Your task to perform on an android device: check the backup settings in the google photos Image 0: 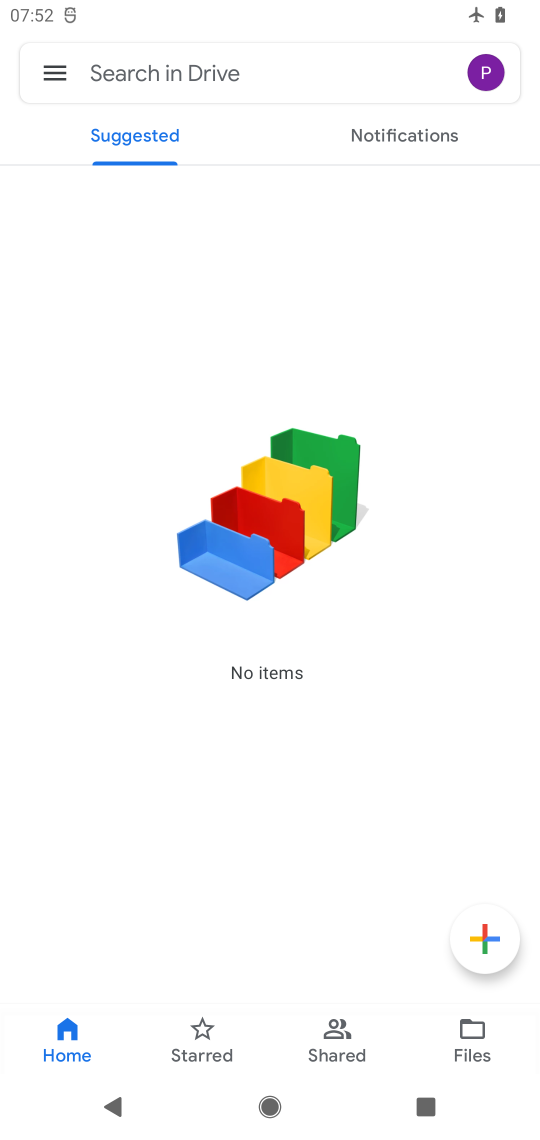
Step 0: press home button
Your task to perform on an android device: check the backup settings in the google photos Image 1: 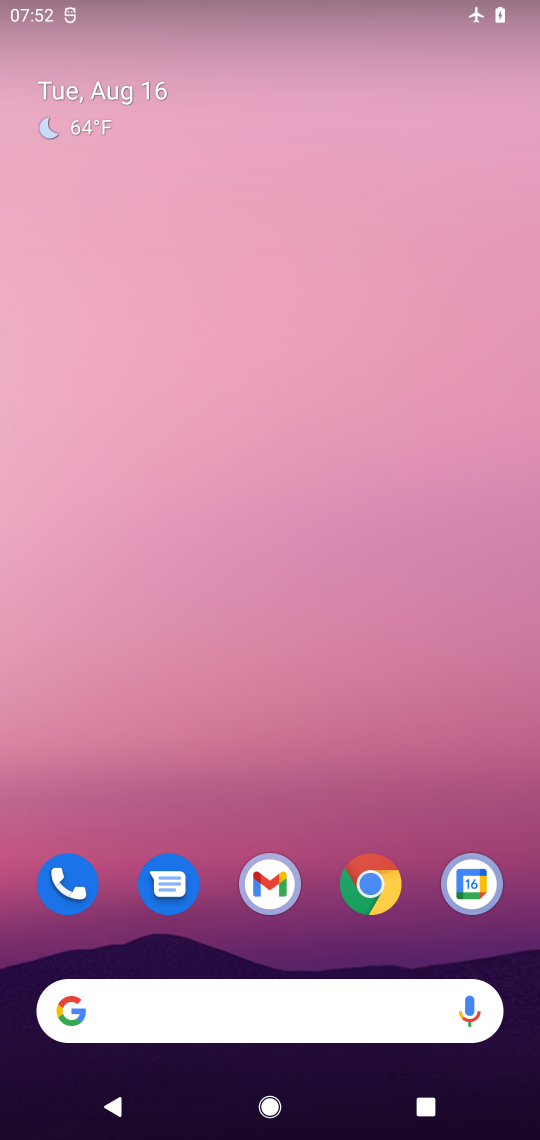
Step 1: drag from (363, 748) to (274, 39)
Your task to perform on an android device: check the backup settings in the google photos Image 2: 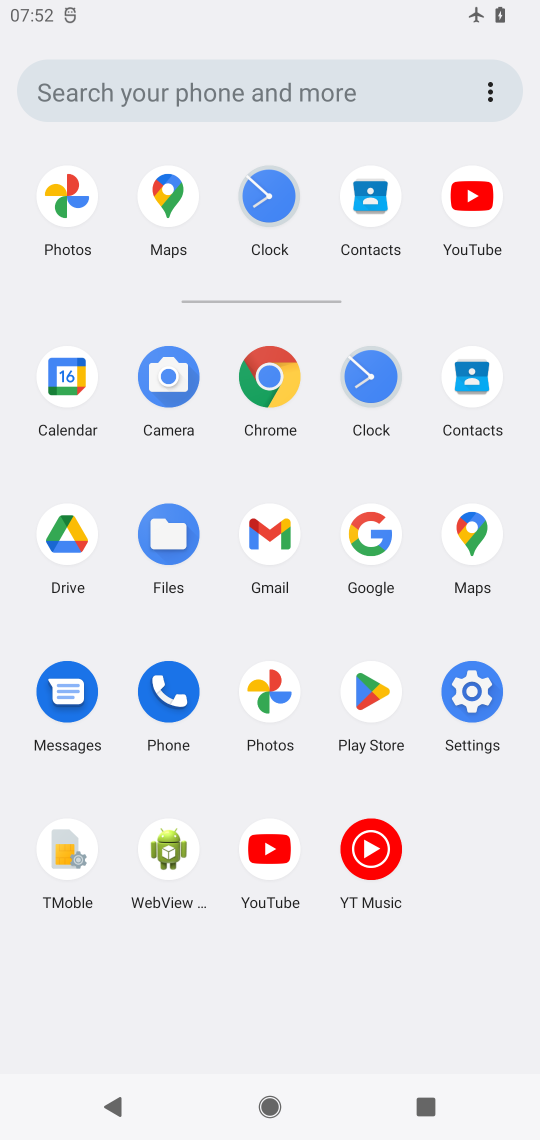
Step 2: click (269, 686)
Your task to perform on an android device: check the backup settings in the google photos Image 3: 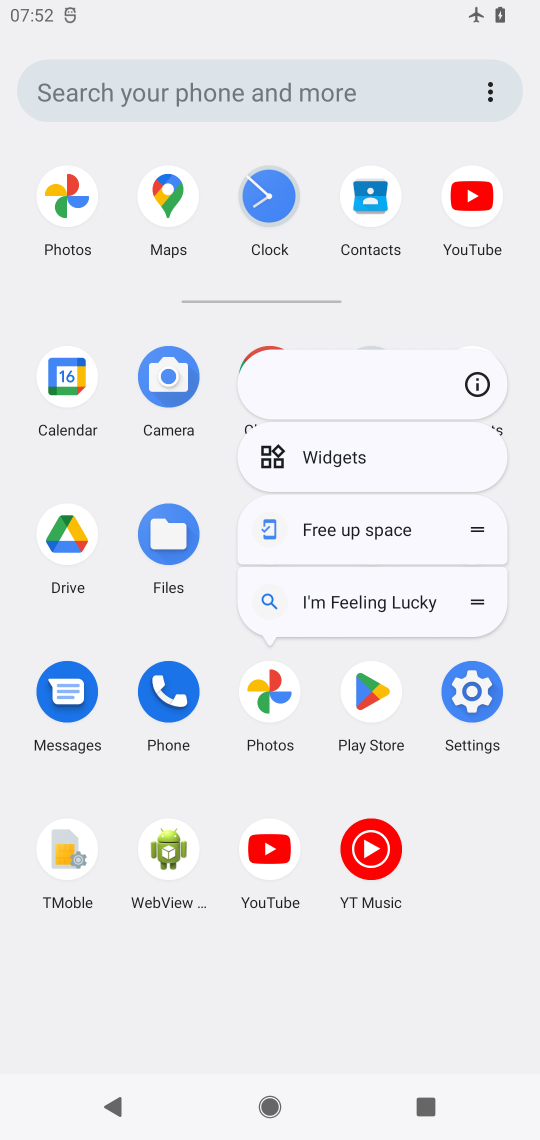
Step 3: click (274, 698)
Your task to perform on an android device: check the backup settings in the google photos Image 4: 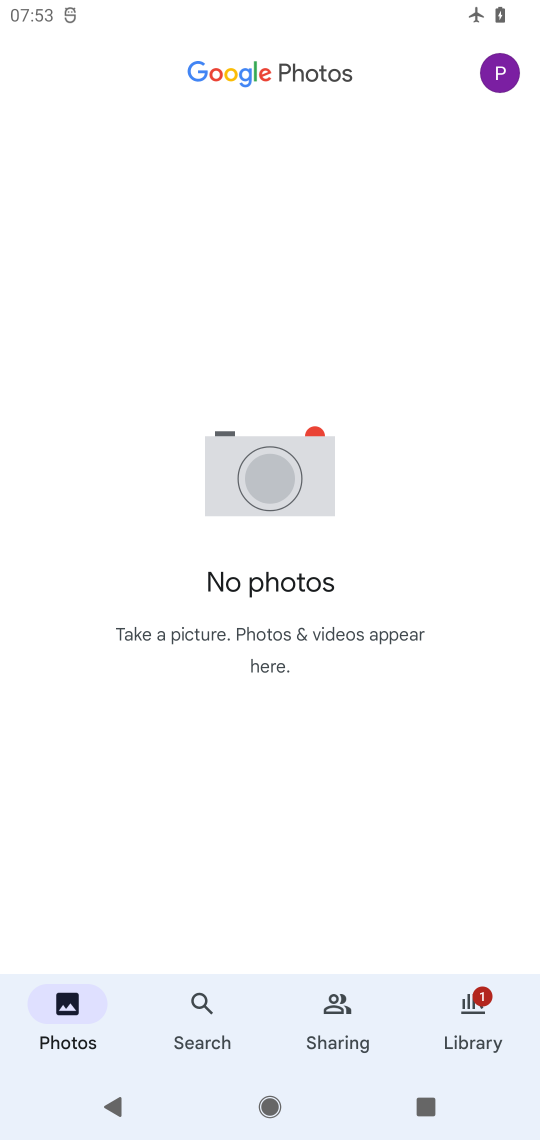
Step 4: click (491, 68)
Your task to perform on an android device: check the backup settings in the google photos Image 5: 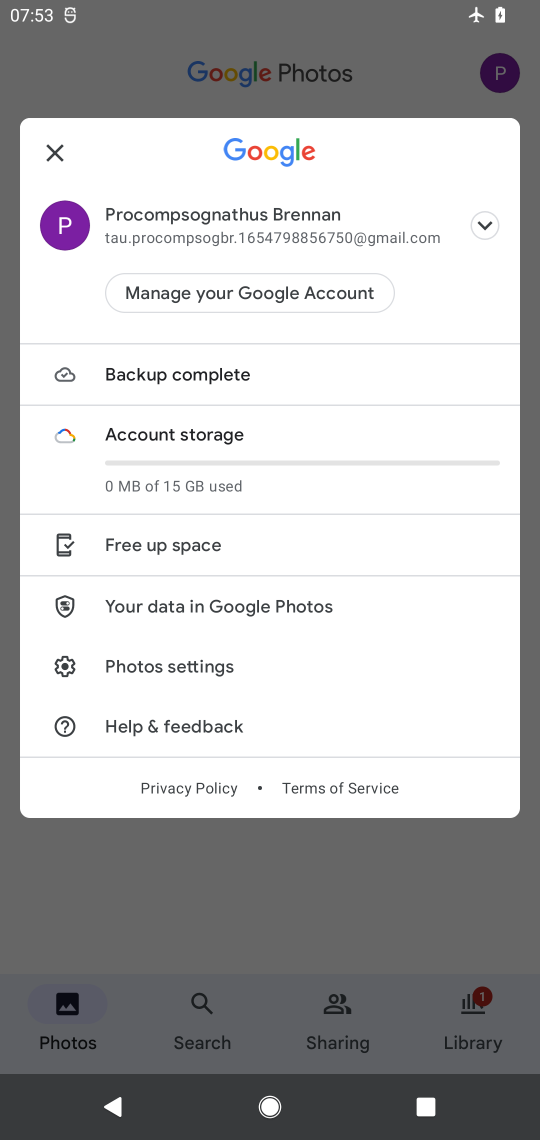
Step 5: drag from (224, 371) to (255, 451)
Your task to perform on an android device: check the backup settings in the google photos Image 6: 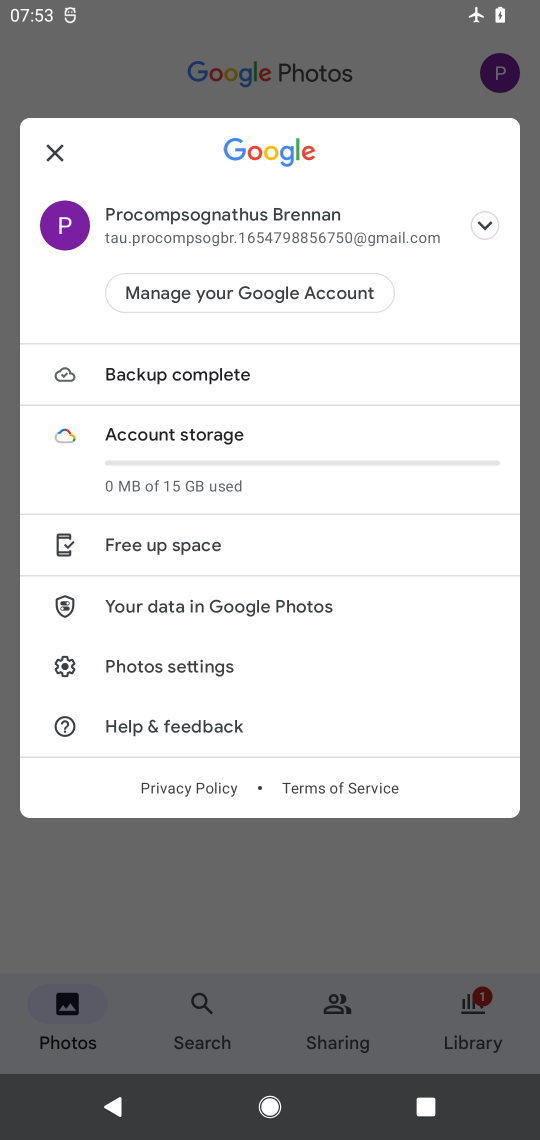
Step 6: click (209, 705)
Your task to perform on an android device: check the backup settings in the google photos Image 7: 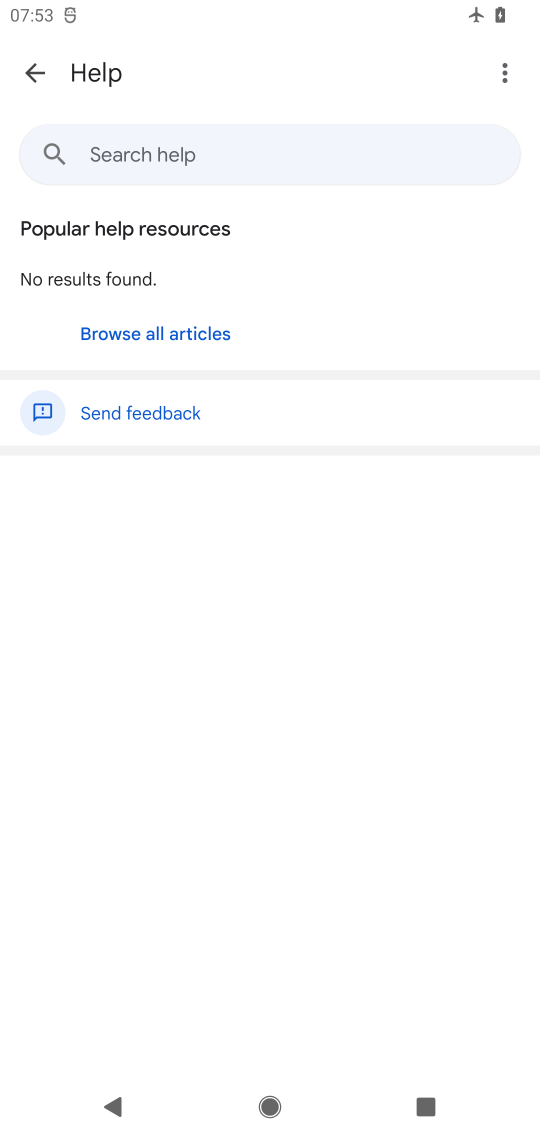
Step 7: click (35, 67)
Your task to perform on an android device: check the backup settings in the google photos Image 8: 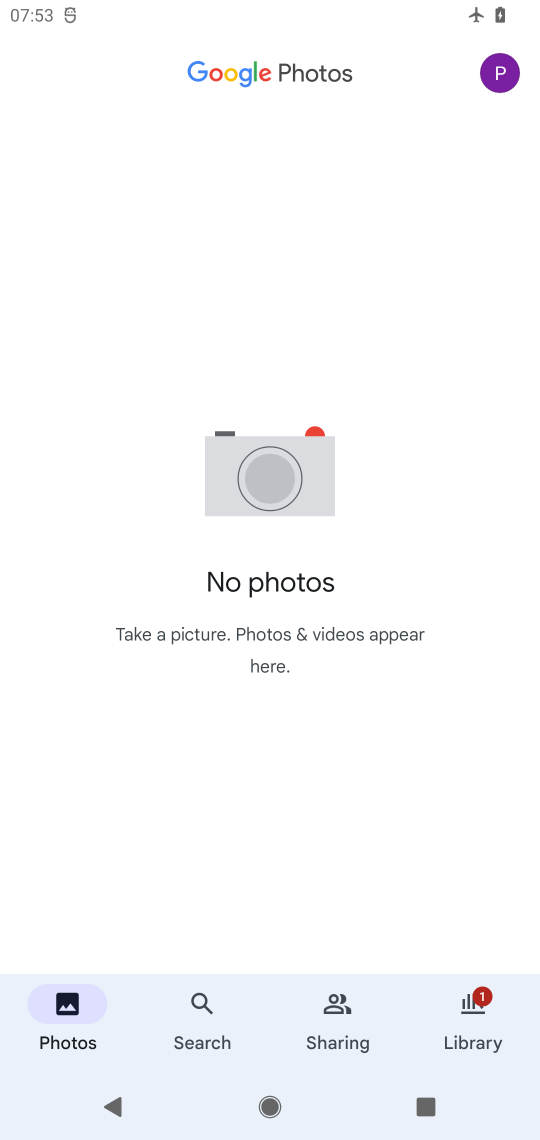
Step 8: click (491, 68)
Your task to perform on an android device: check the backup settings in the google photos Image 9: 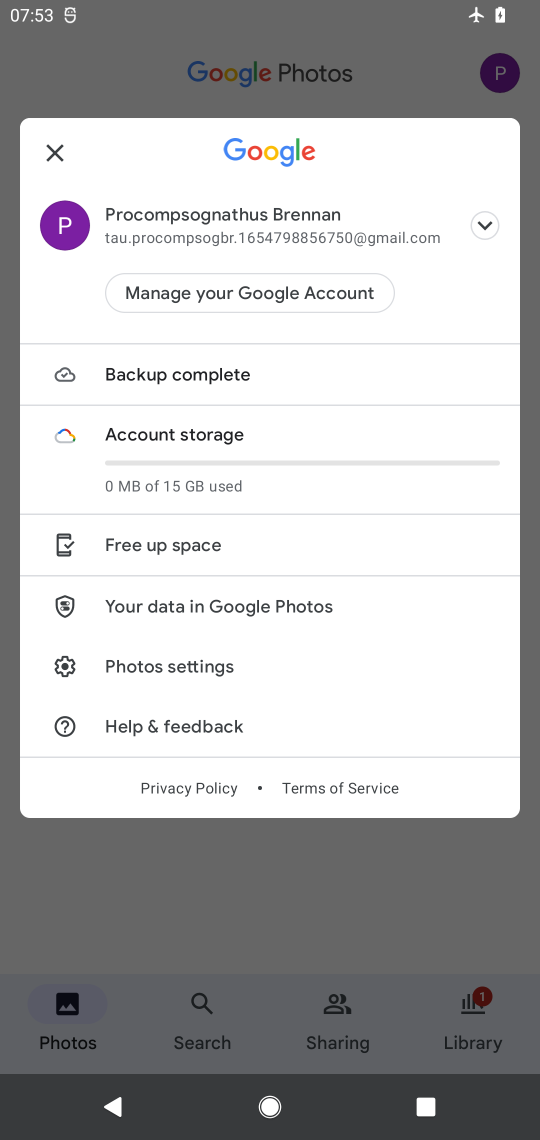
Step 9: click (191, 665)
Your task to perform on an android device: check the backup settings in the google photos Image 10: 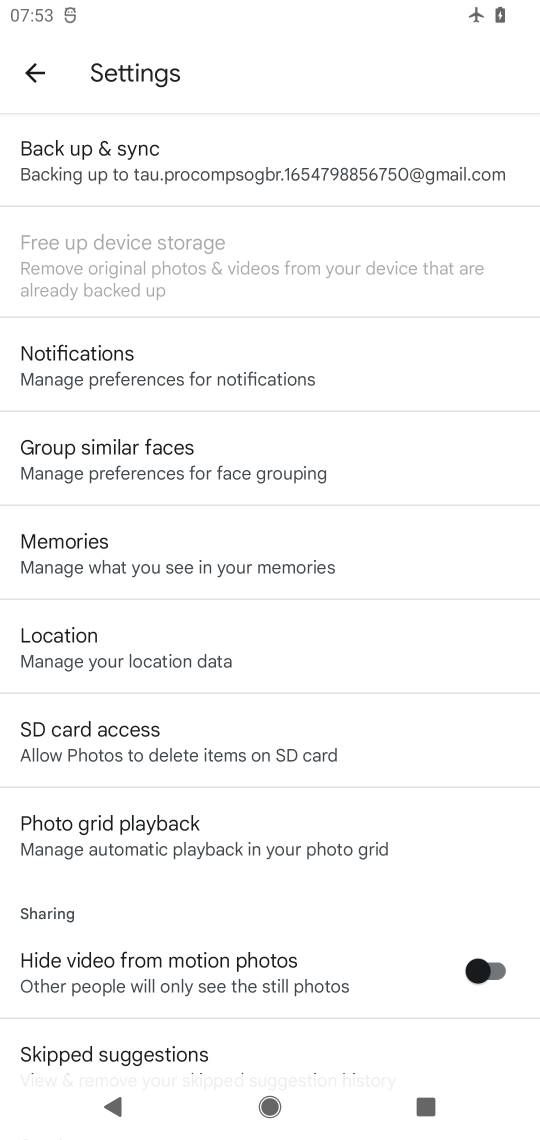
Step 10: click (209, 146)
Your task to perform on an android device: check the backup settings in the google photos Image 11: 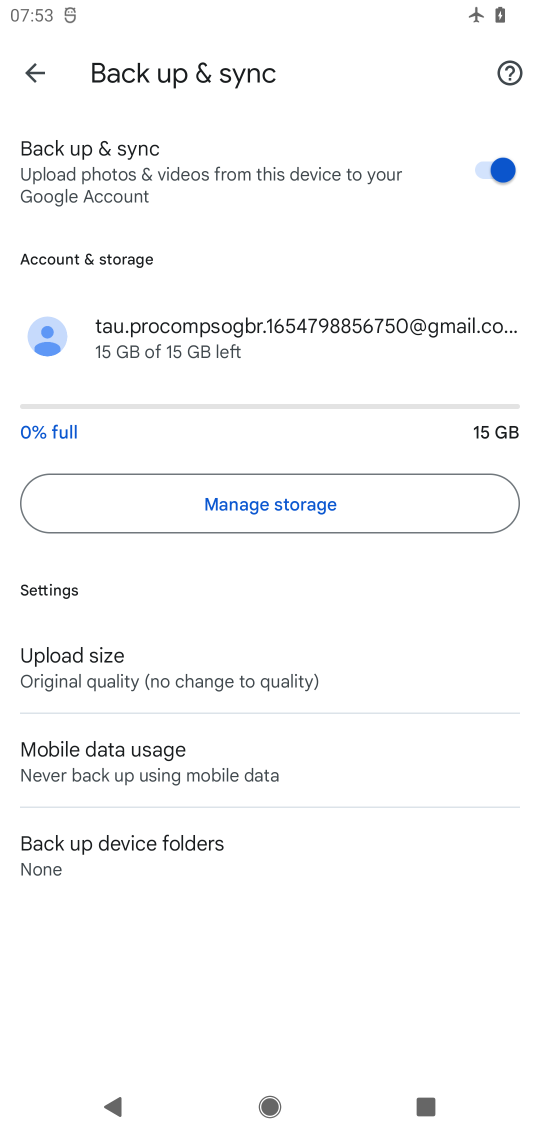
Step 11: task complete